Your task to perform on an android device: check out phone information Image 0: 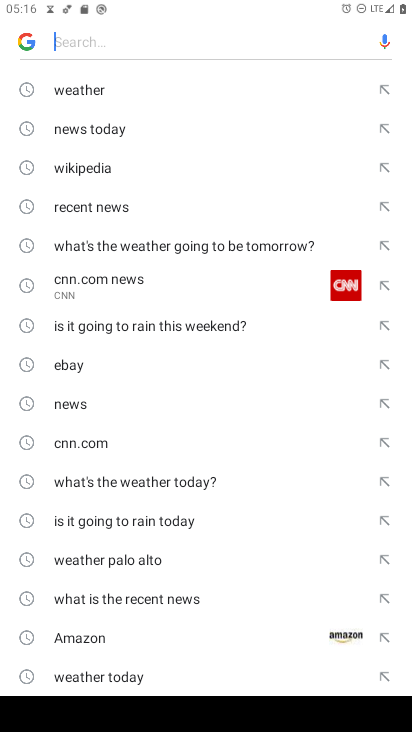
Step 0: press home button
Your task to perform on an android device: check out phone information Image 1: 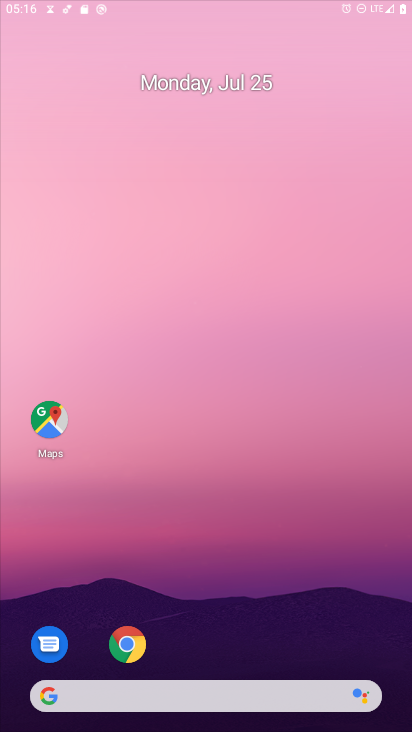
Step 1: drag from (252, 291) to (240, 3)
Your task to perform on an android device: check out phone information Image 2: 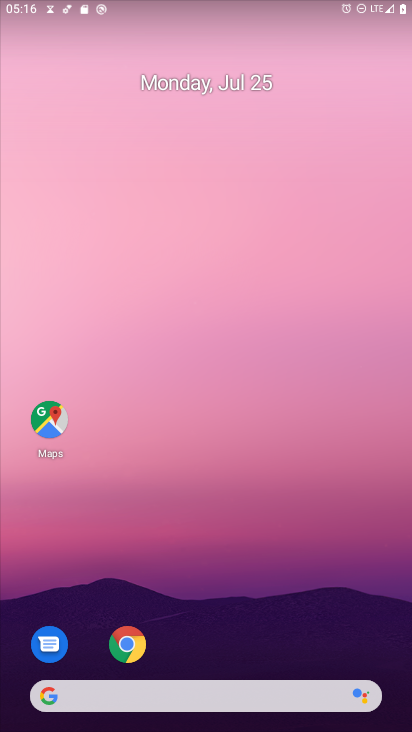
Step 2: drag from (283, 586) to (188, 5)
Your task to perform on an android device: check out phone information Image 3: 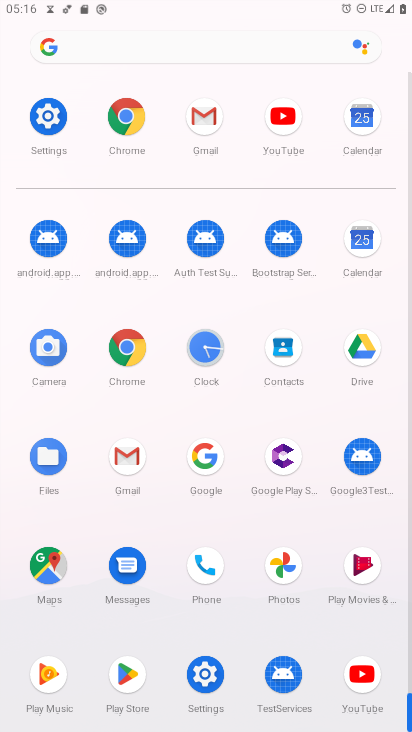
Step 3: click (42, 121)
Your task to perform on an android device: check out phone information Image 4: 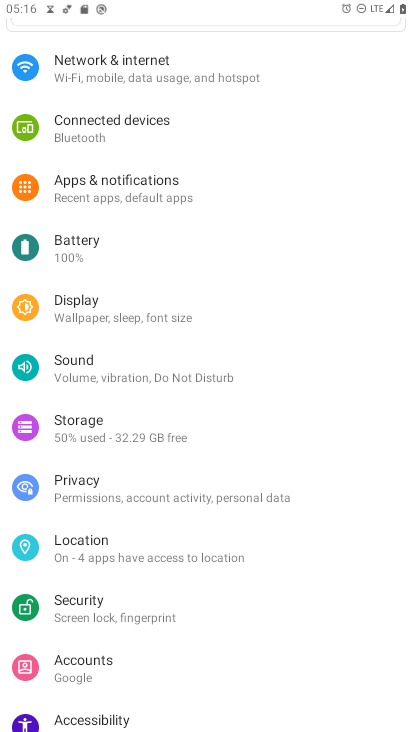
Step 4: drag from (176, 690) to (132, 144)
Your task to perform on an android device: check out phone information Image 5: 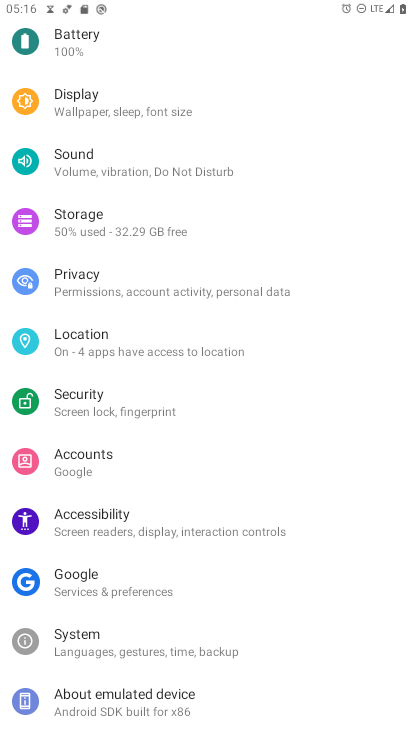
Step 5: click (117, 704)
Your task to perform on an android device: check out phone information Image 6: 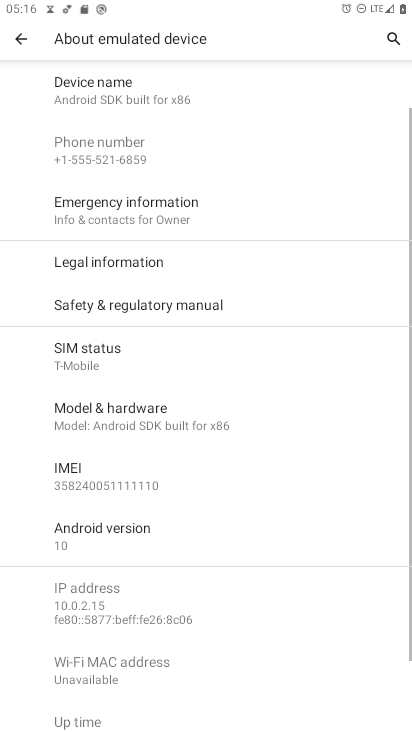
Step 6: task complete